Your task to perform on an android device: Search for "razer thresher" on costco, select the first entry, and add it to the cart. Image 0: 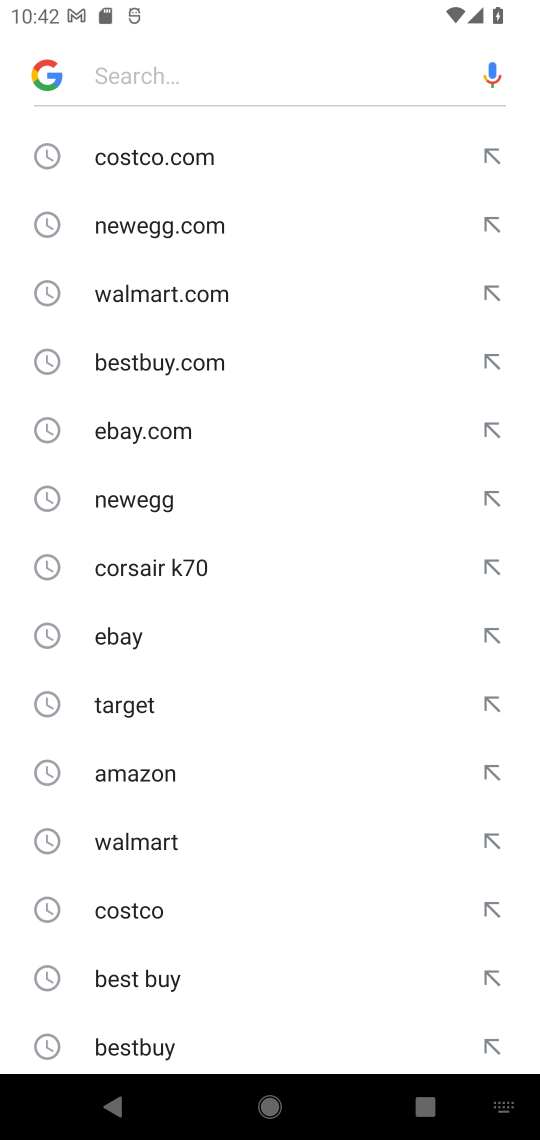
Step 0: press home button
Your task to perform on an android device: Search for "razer thresher" on costco, select the first entry, and add it to the cart. Image 1: 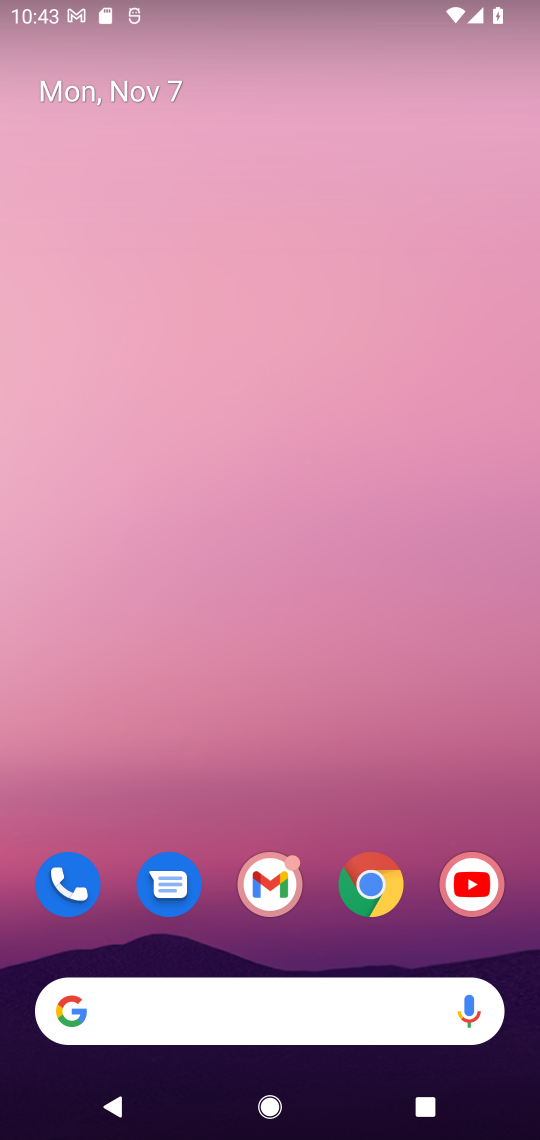
Step 1: click (355, 885)
Your task to perform on an android device: Search for "razer thresher" on costco, select the first entry, and add it to the cart. Image 2: 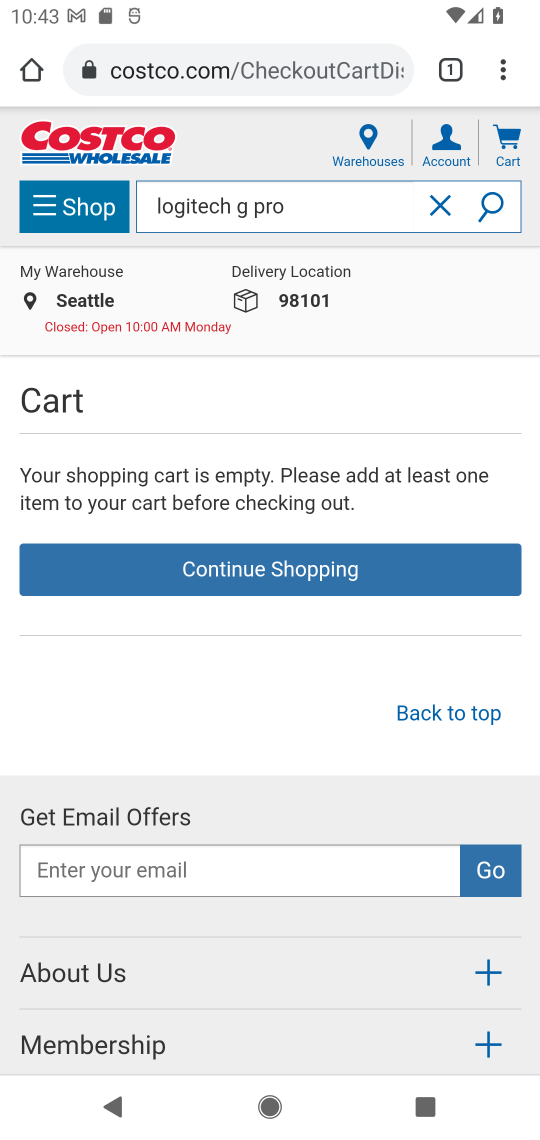
Step 2: click (444, 205)
Your task to perform on an android device: Search for "razer thresher" on costco, select the first entry, and add it to the cart. Image 3: 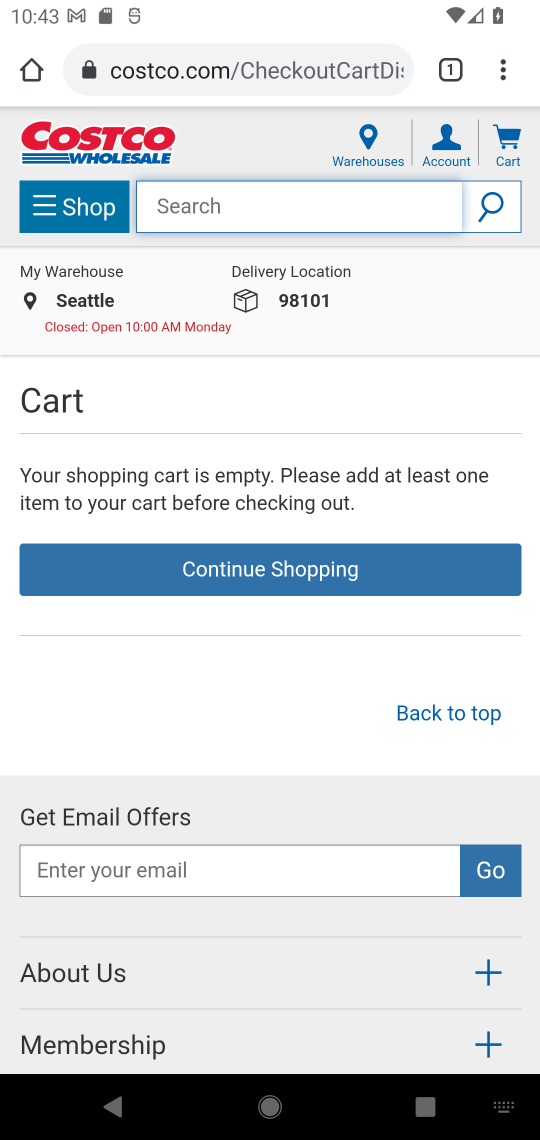
Step 3: type "razer thresher"
Your task to perform on an android device: Search for "razer thresher" on costco, select the first entry, and add it to the cart. Image 4: 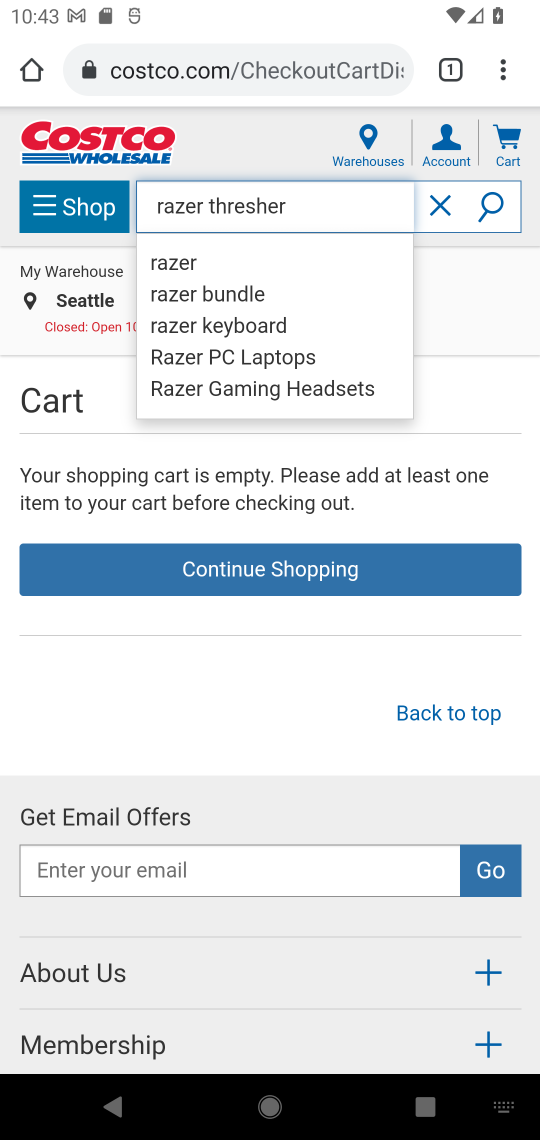
Step 4: click (513, 302)
Your task to perform on an android device: Search for "razer thresher" on costco, select the first entry, and add it to the cart. Image 5: 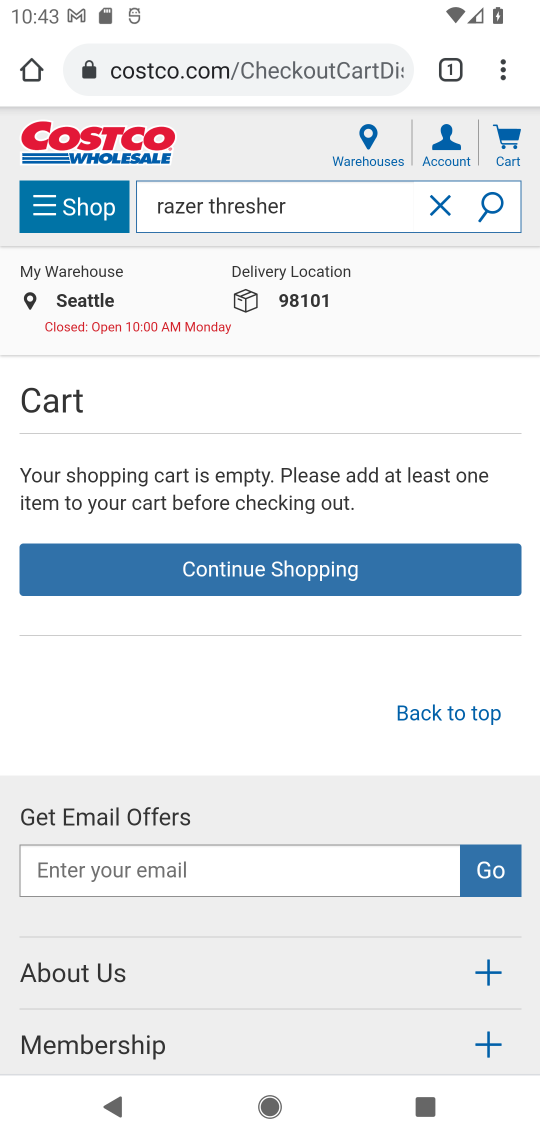
Step 5: task complete